Your task to perform on an android device: open a bookmark in the chrome app Image 0: 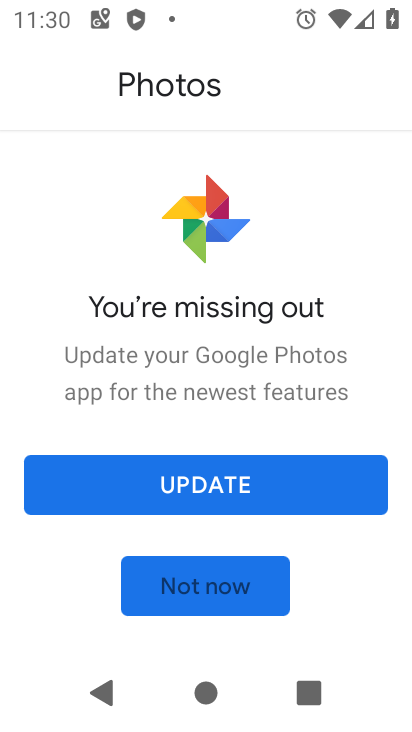
Step 0: press home button
Your task to perform on an android device: open a bookmark in the chrome app Image 1: 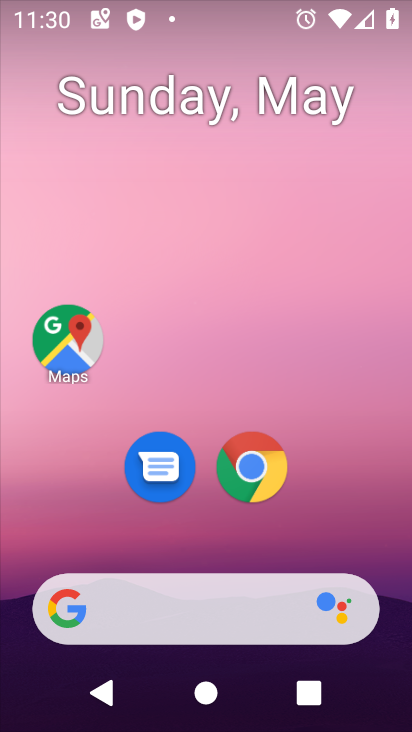
Step 1: click (257, 477)
Your task to perform on an android device: open a bookmark in the chrome app Image 2: 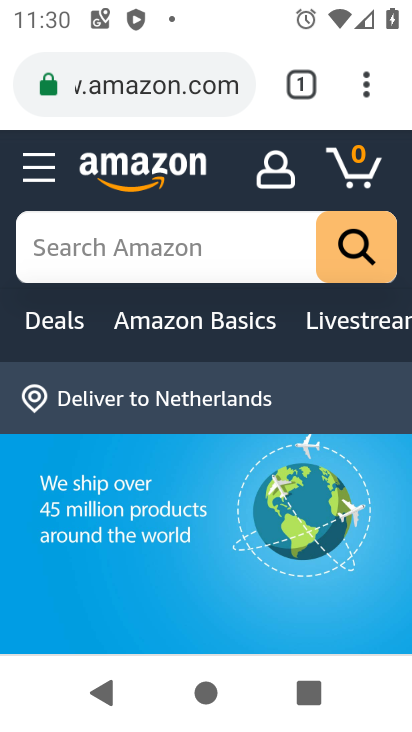
Step 2: click (368, 84)
Your task to perform on an android device: open a bookmark in the chrome app Image 3: 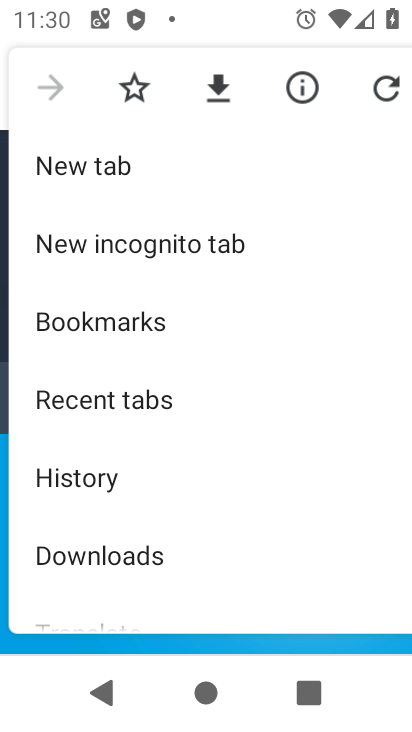
Step 3: click (160, 325)
Your task to perform on an android device: open a bookmark in the chrome app Image 4: 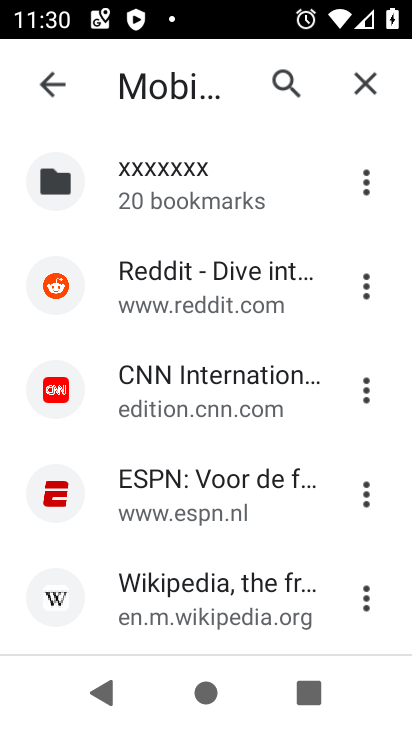
Step 4: drag from (182, 531) to (182, 148)
Your task to perform on an android device: open a bookmark in the chrome app Image 5: 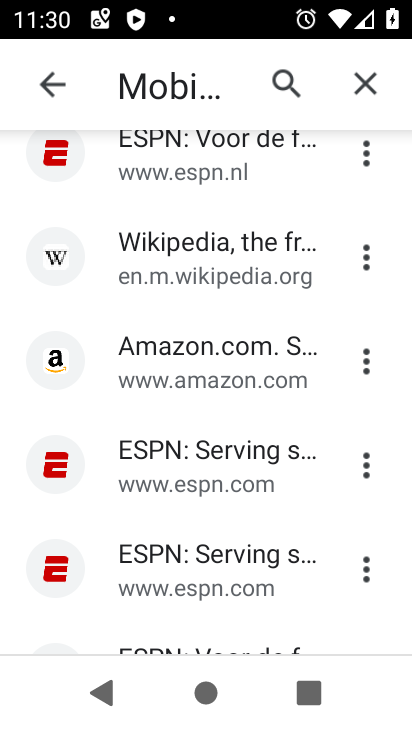
Step 5: drag from (170, 497) to (181, 248)
Your task to perform on an android device: open a bookmark in the chrome app Image 6: 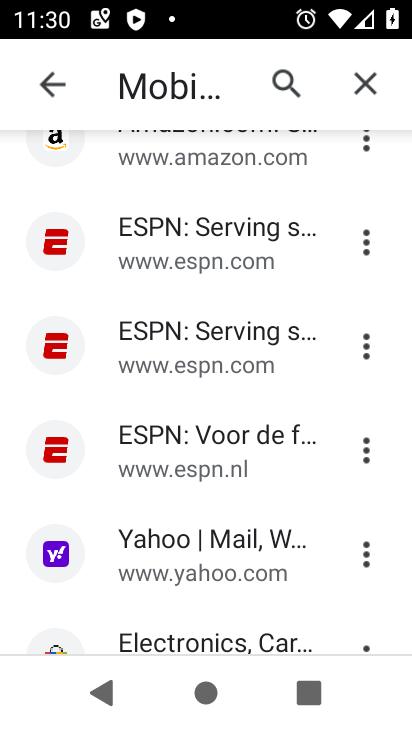
Step 6: click (176, 363)
Your task to perform on an android device: open a bookmark in the chrome app Image 7: 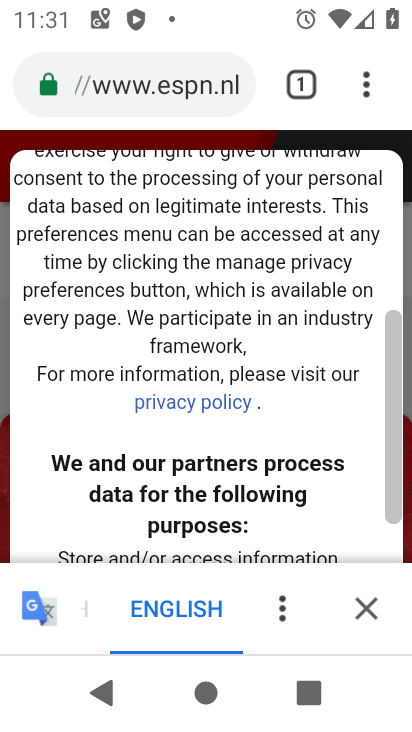
Step 7: task complete